Your task to perform on an android device: Is it going to rain today? Image 0: 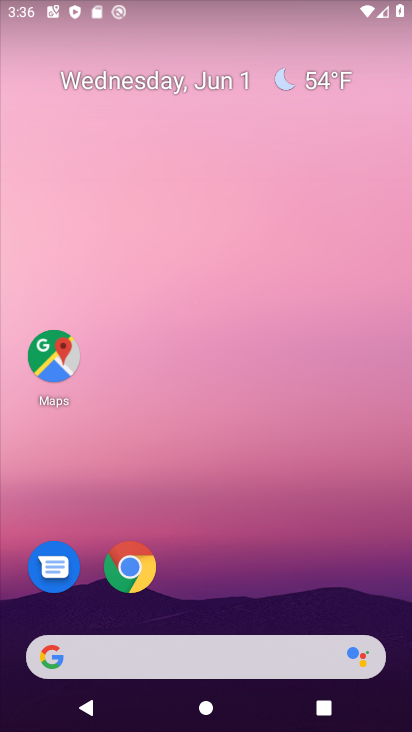
Step 0: drag from (208, 640) to (203, 215)
Your task to perform on an android device: Is it going to rain today? Image 1: 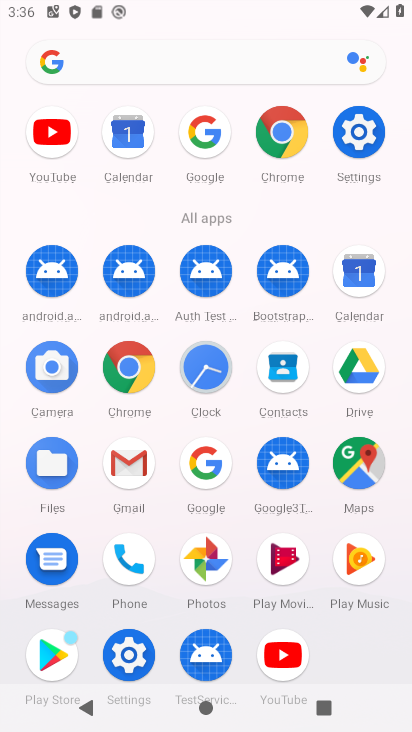
Step 1: click (218, 474)
Your task to perform on an android device: Is it going to rain today? Image 2: 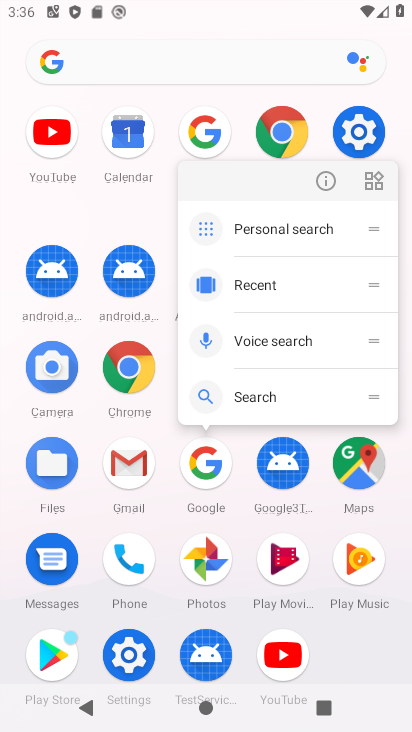
Step 2: click (209, 466)
Your task to perform on an android device: Is it going to rain today? Image 3: 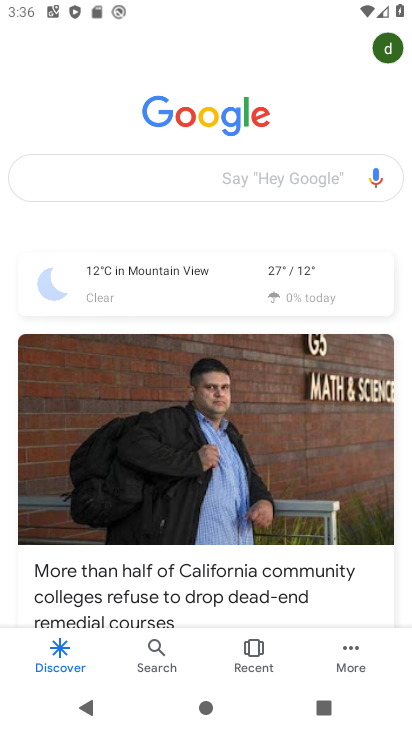
Step 3: click (188, 177)
Your task to perform on an android device: Is it going to rain today? Image 4: 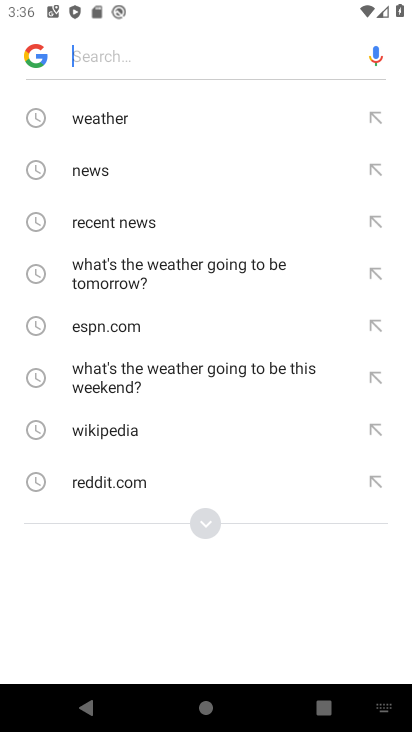
Step 4: click (202, 531)
Your task to perform on an android device: Is it going to rain today? Image 5: 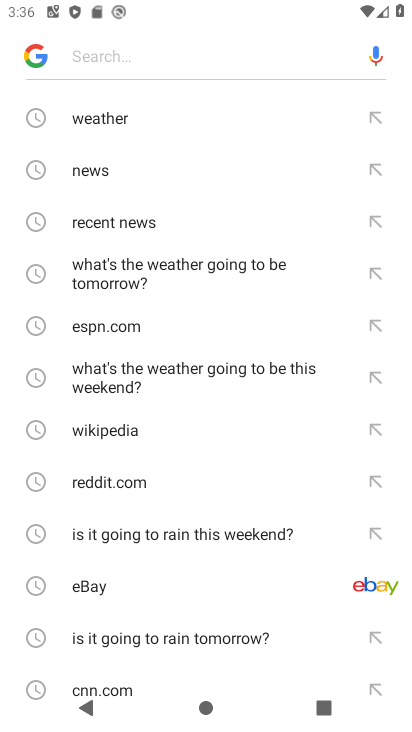
Step 5: click (149, 639)
Your task to perform on an android device: Is it going to rain today? Image 6: 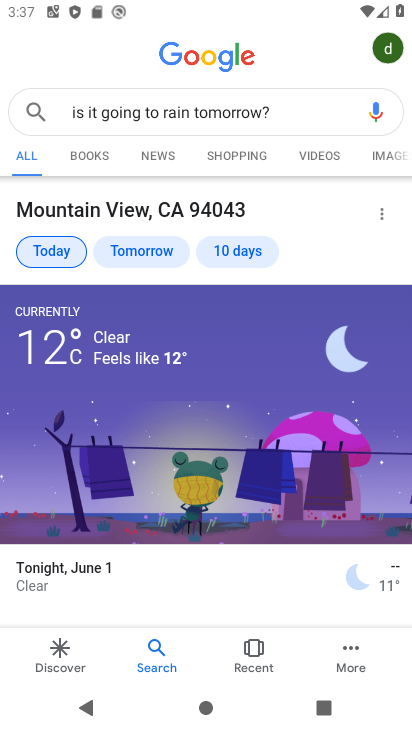
Step 6: task complete